Your task to perform on an android device: Go to Google maps Image 0: 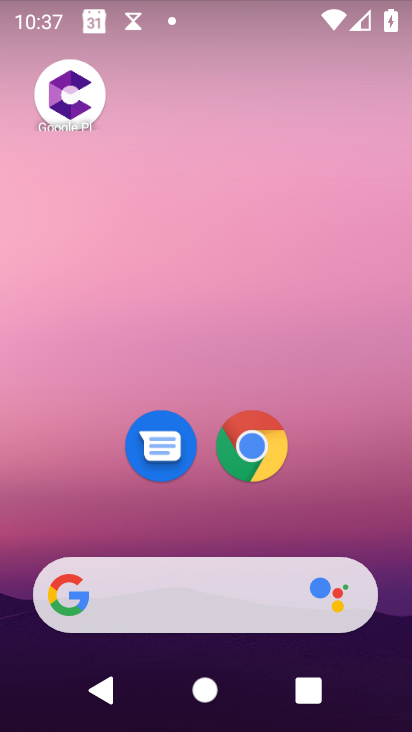
Step 0: drag from (340, 376) to (340, 65)
Your task to perform on an android device: Go to Google maps Image 1: 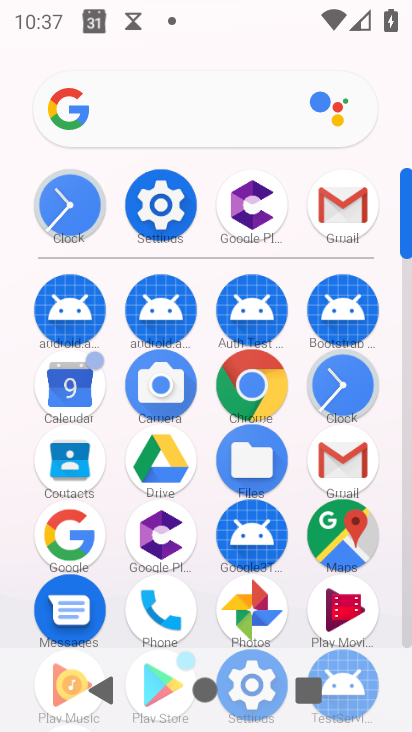
Step 1: click (345, 521)
Your task to perform on an android device: Go to Google maps Image 2: 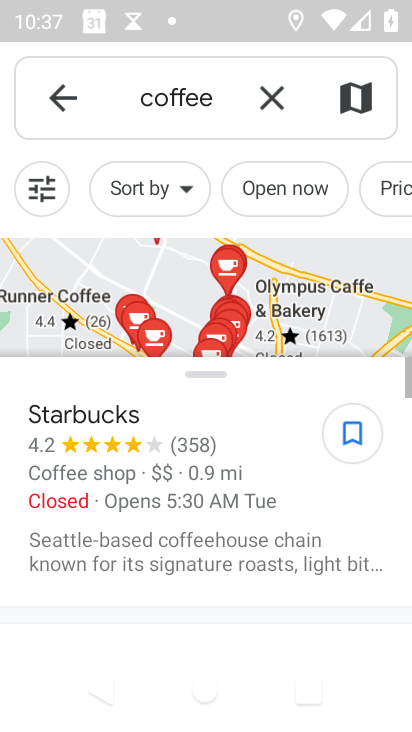
Step 2: click (58, 91)
Your task to perform on an android device: Go to Google maps Image 3: 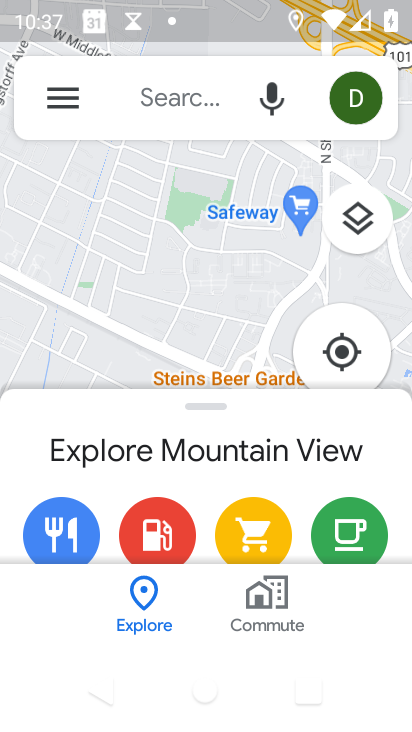
Step 3: task complete